Your task to perform on an android device: Add "dell xps" to the cart on newegg.com, then select checkout. Image 0: 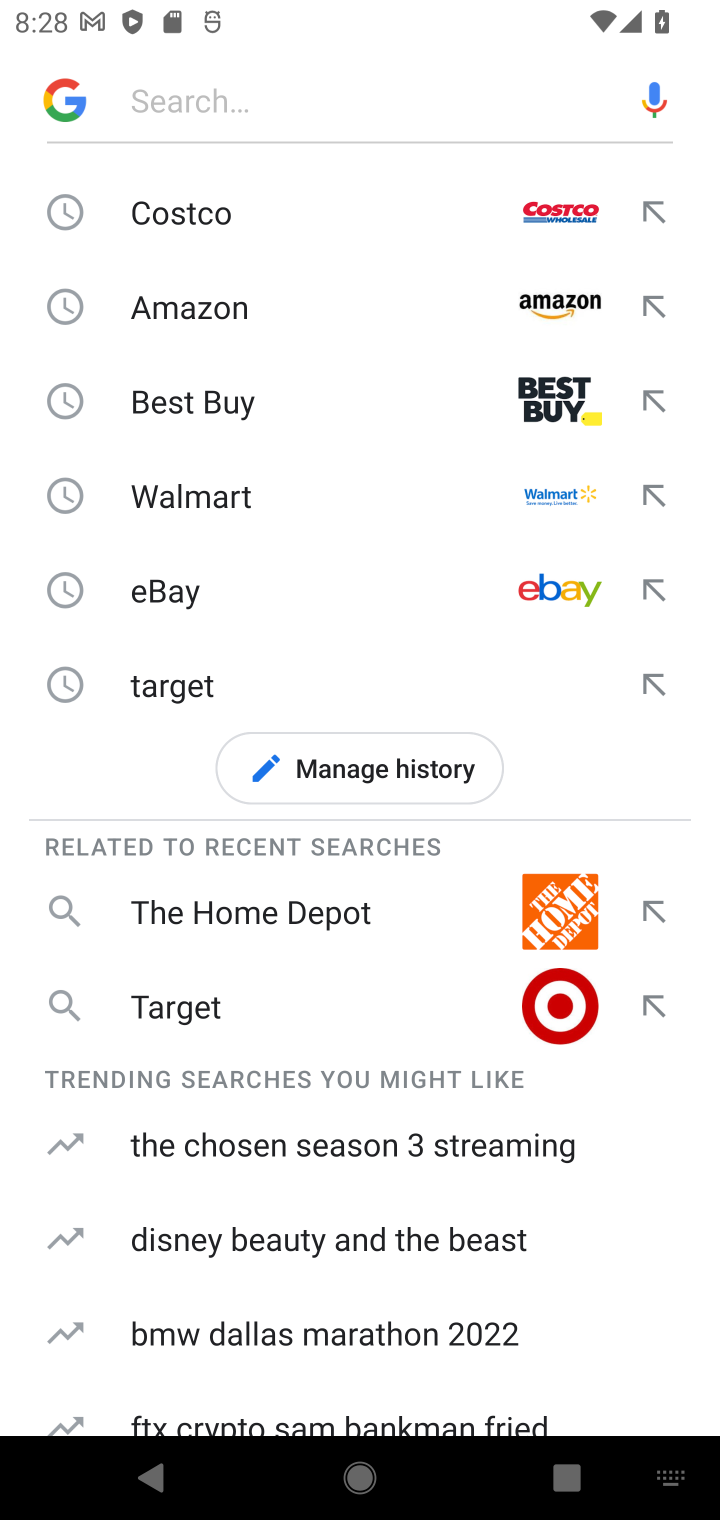
Step 0: type "newegg"
Your task to perform on an android device: Add "dell xps" to the cart on newegg.com, then select checkout. Image 1: 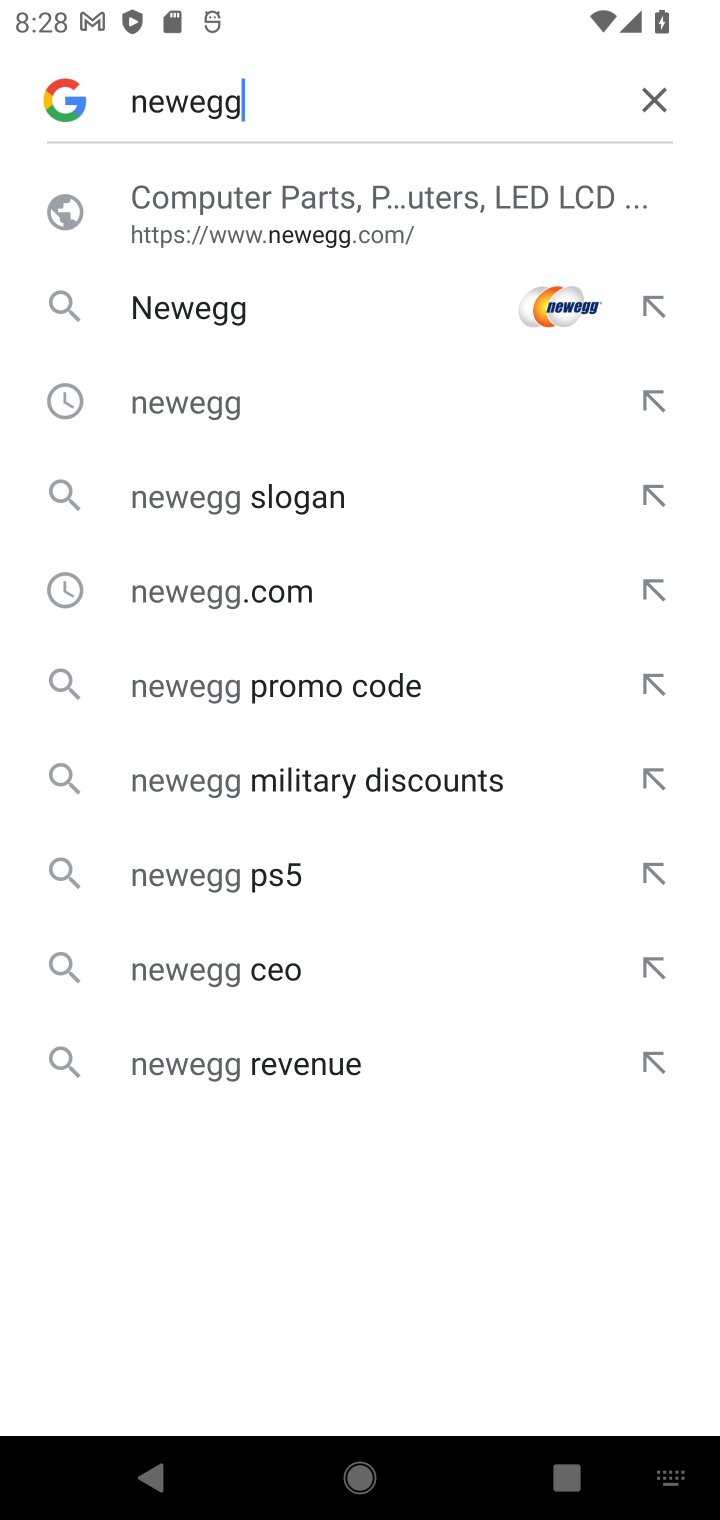
Step 1: click (184, 246)
Your task to perform on an android device: Add "dell xps" to the cart on newegg.com, then select checkout. Image 2: 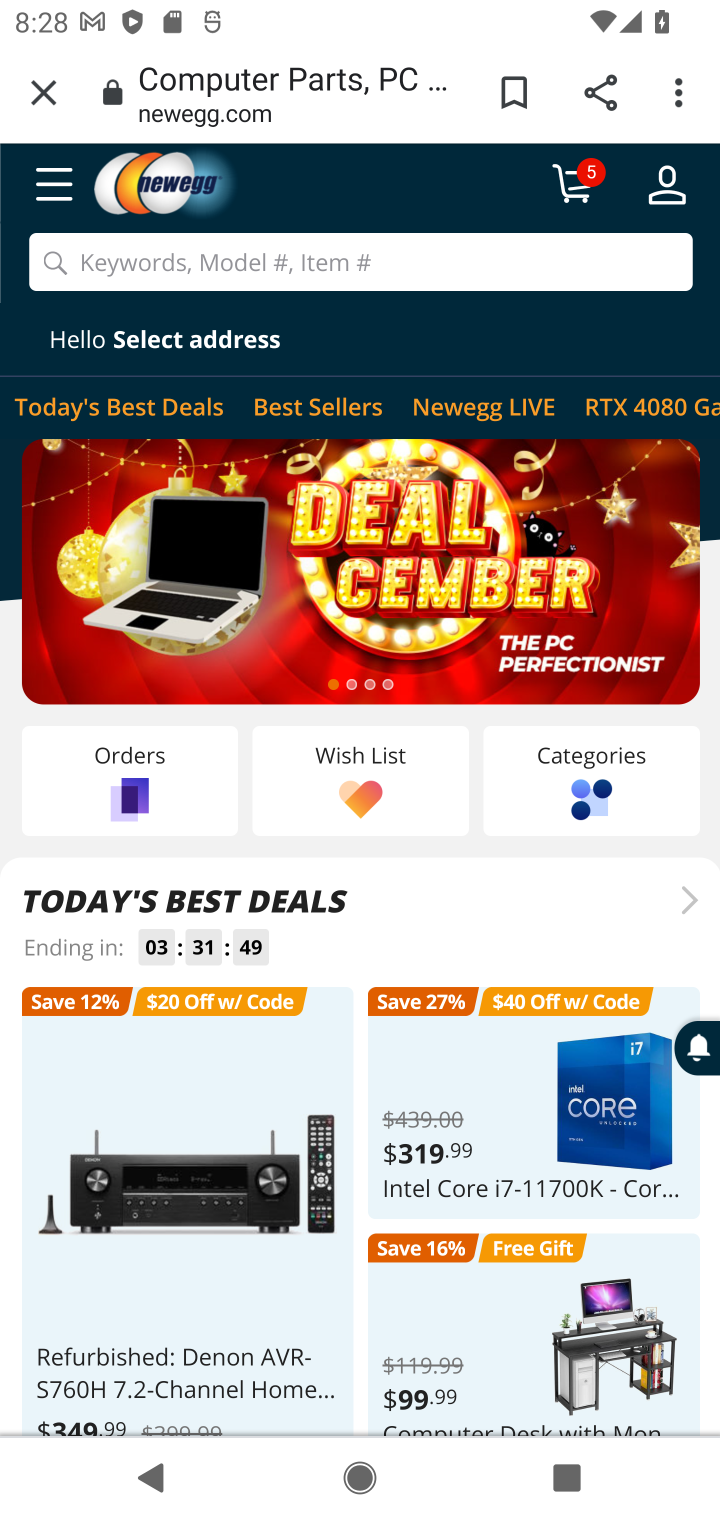
Step 2: click (296, 264)
Your task to perform on an android device: Add "dell xps" to the cart on newegg.com, then select checkout. Image 3: 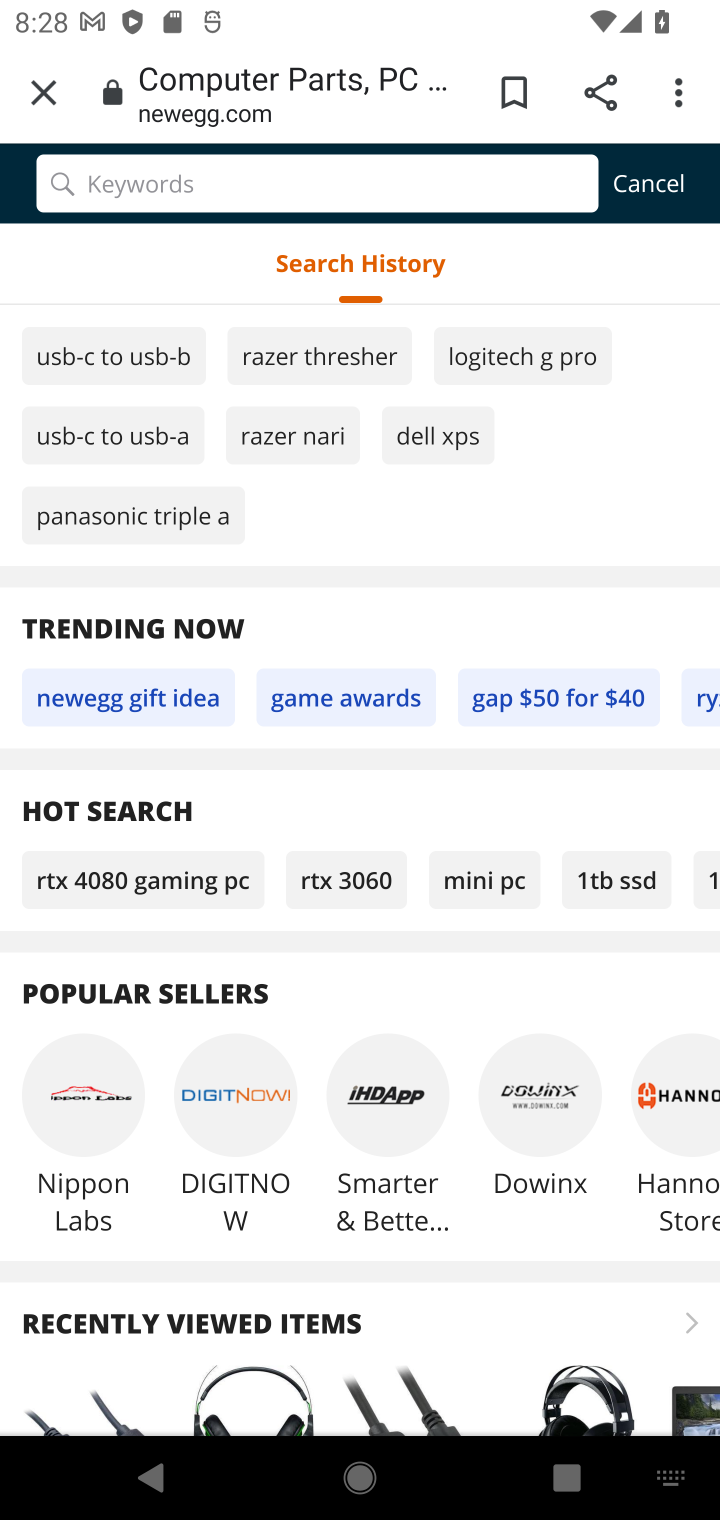
Step 3: type "dell xps"
Your task to perform on an android device: Add "dell xps" to the cart on newegg.com, then select checkout. Image 4: 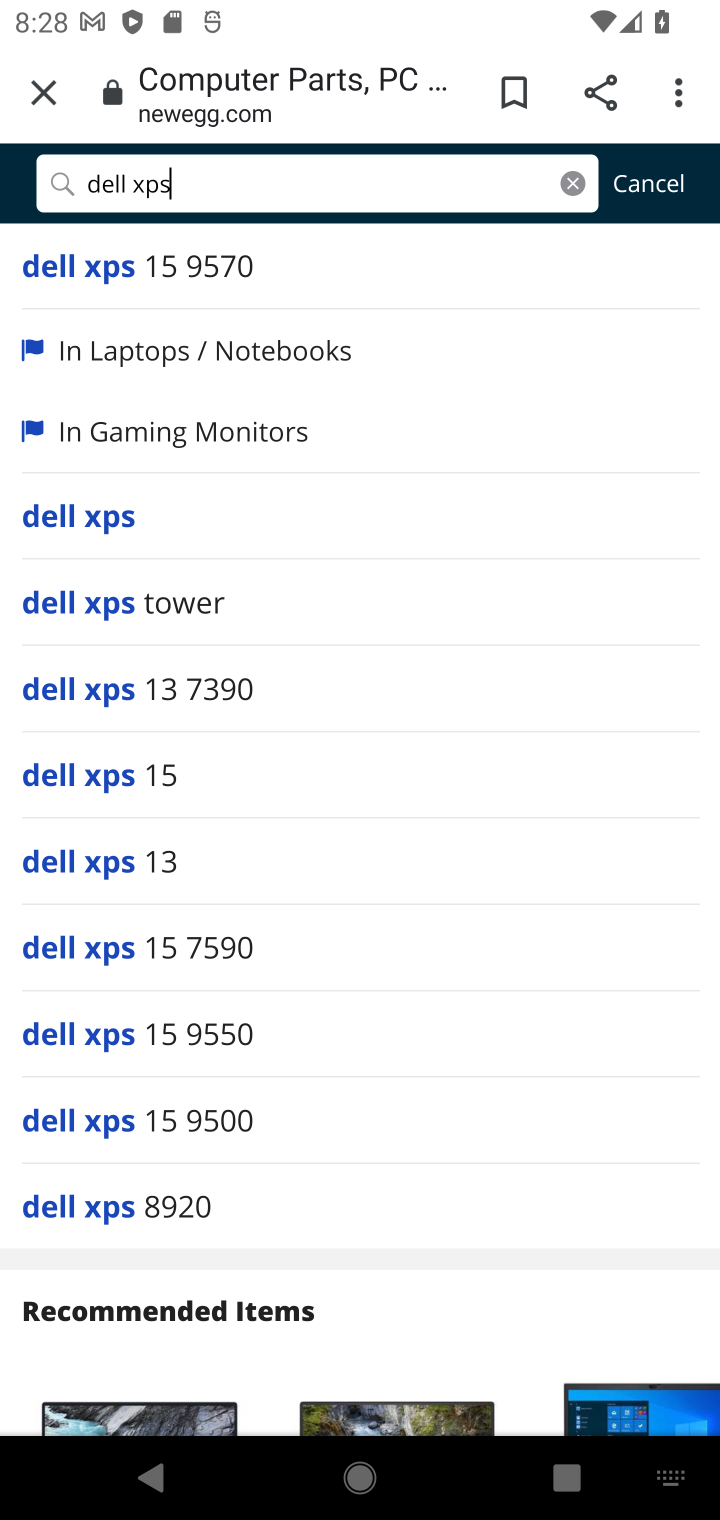
Step 4: click (128, 498)
Your task to perform on an android device: Add "dell xps" to the cart on newegg.com, then select checkout. Image 5: 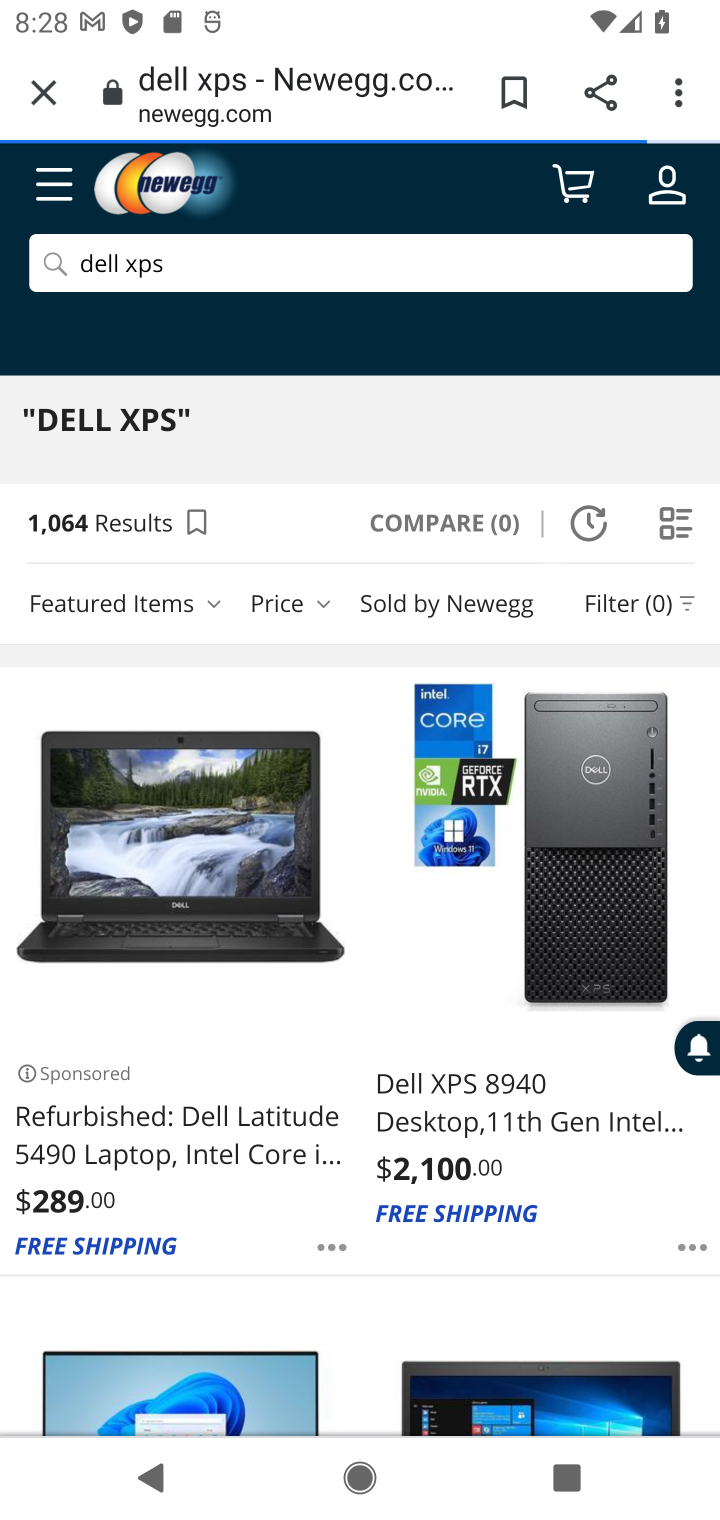
Step 5: click (249, 269)
Your task to perform on an android device: Add "dell xps" to the cart on newegg.com, then select checkout. Image 6: 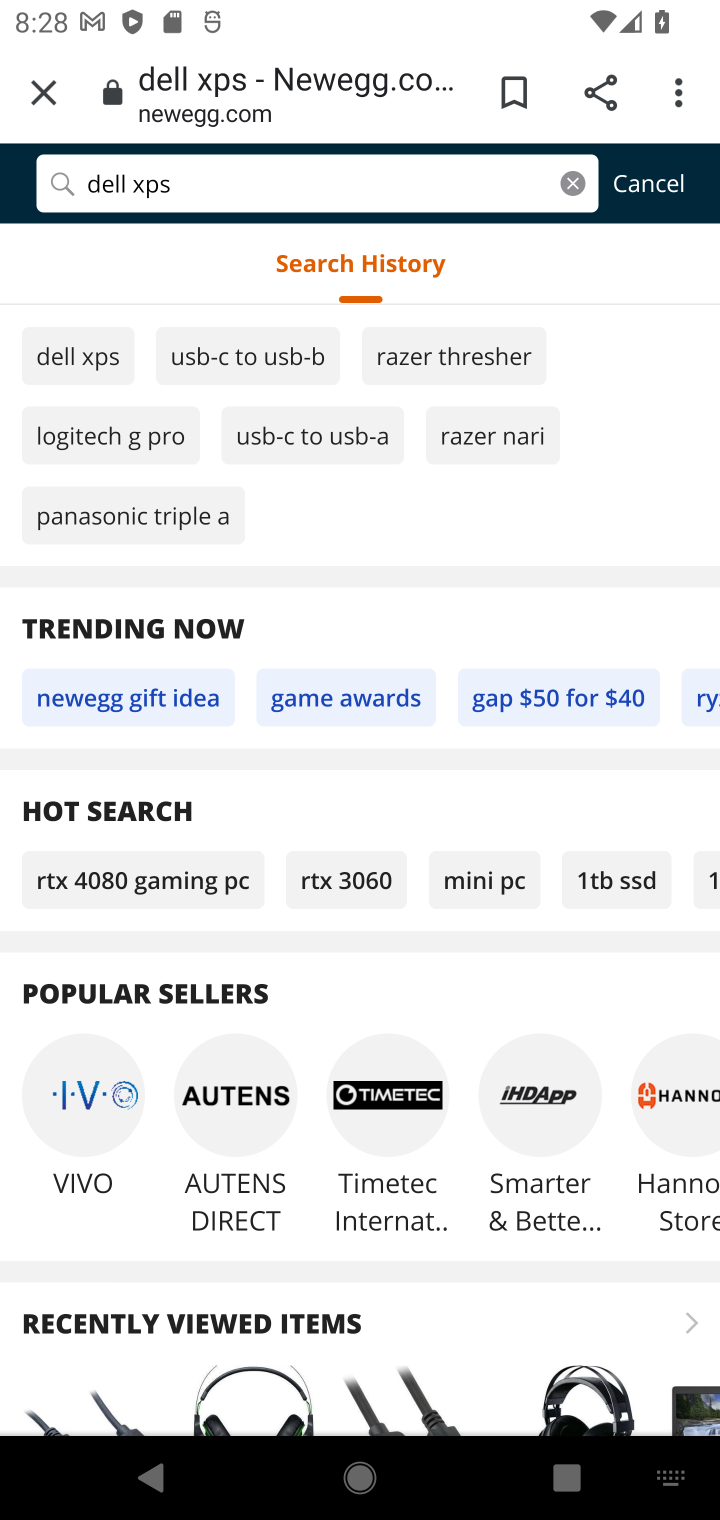
Step 6: click (84, 336)
Your task to perform on an android device: Add "dell xps" to the cart on newegg.com, then select checkout. Image 7: 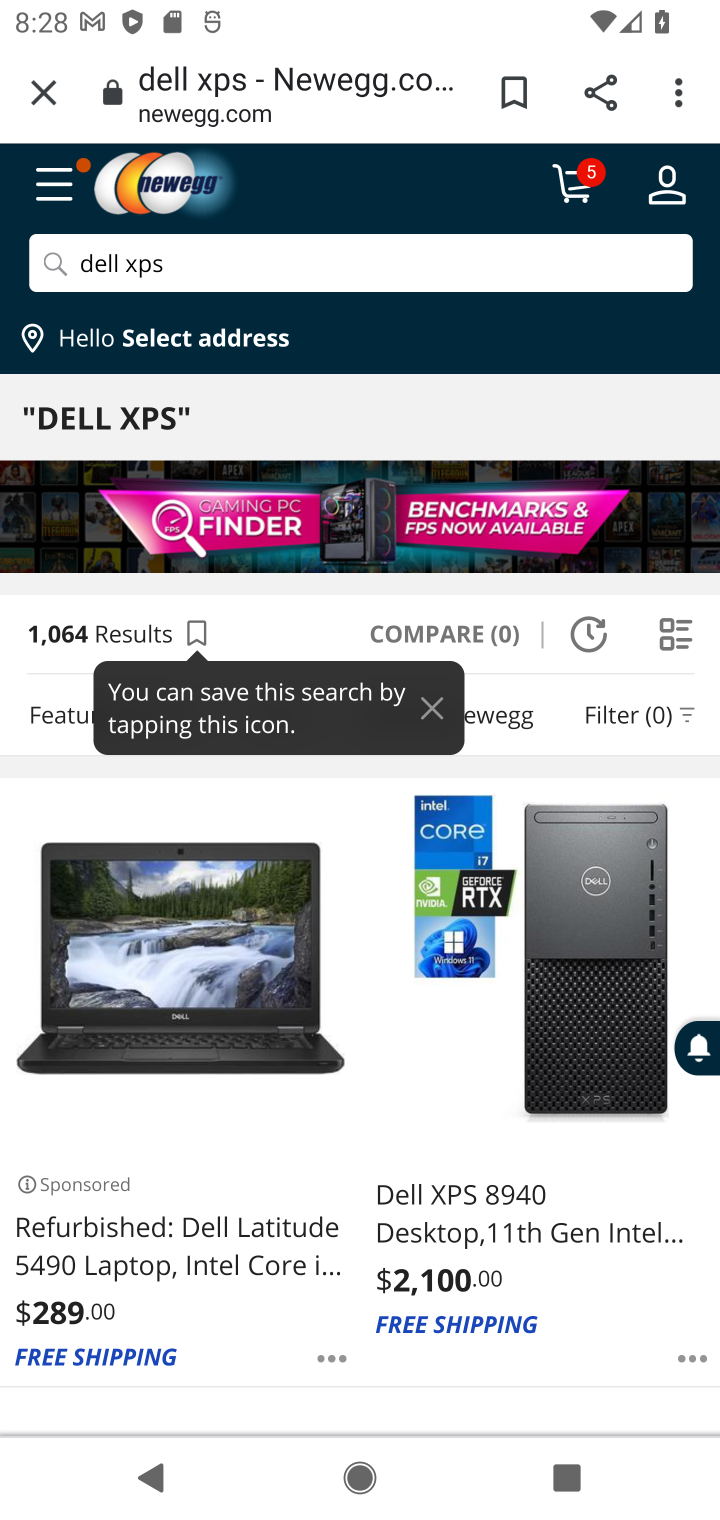
Step 7: task complete